Your task to perform on an android device: Is it going to rain tomorrow? Image 0: 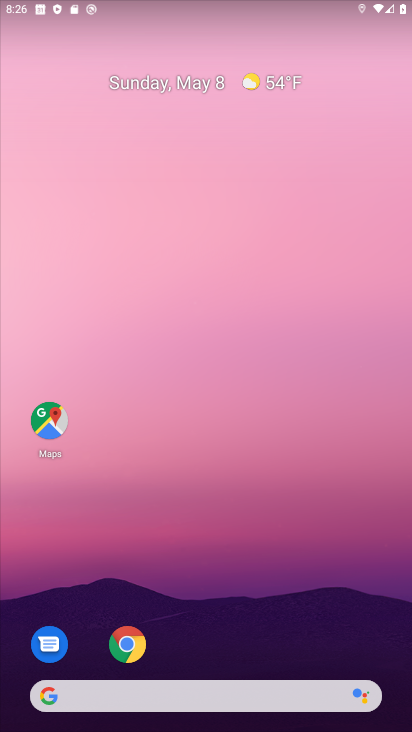
Step 0: drag from (181, 668) to (214, 21)
Your task to perform on an android device: Is it going to rain tomorrow? Image 1: 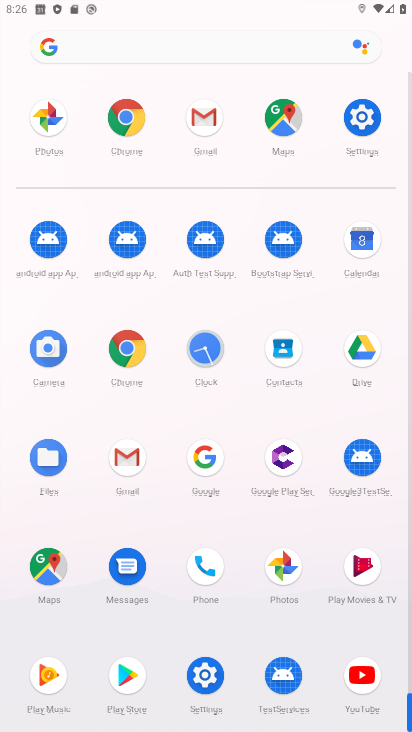
Step 1: click (168, 47)
Your task to perform on an android device: Is it going to rain tomorrow? Image 2: 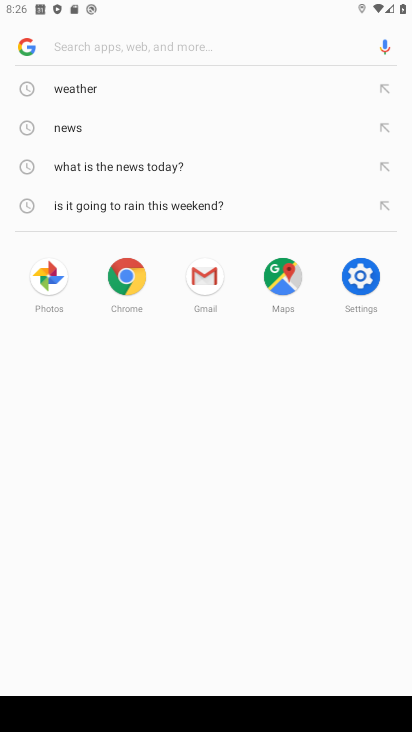
Step 2: type "rain tomorrow"
Your task to perform on an android device: Is it going to rain tomorrow? Image 3: 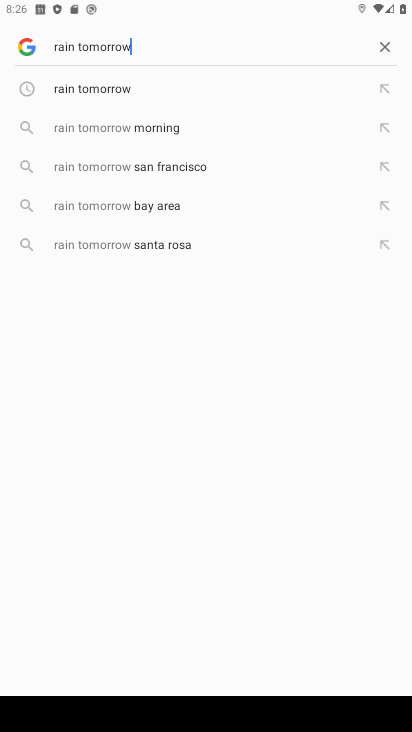
Step 3: click (178, 84)
Your task to perform on an android device: Is it going to rain tomorrow? Image 4: 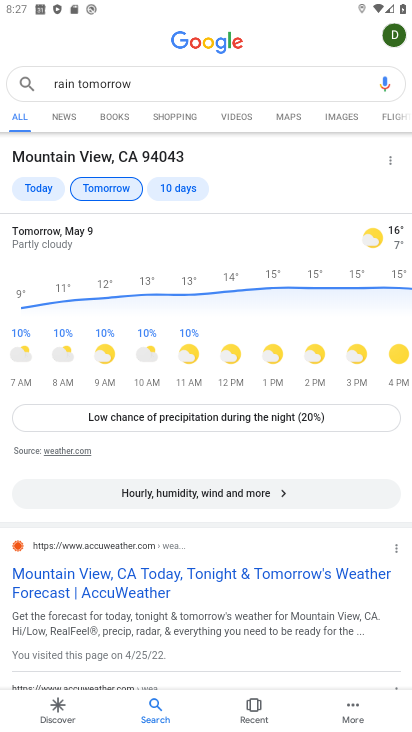
Step 4: task complete